Your task to perform on an android device: Open Yahoo.com Image 0: 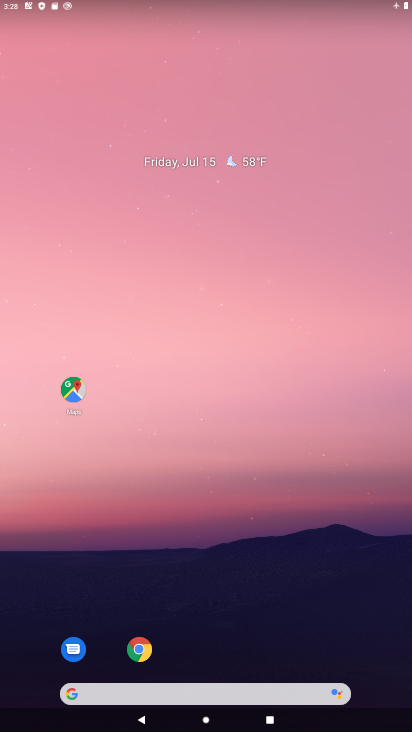
Step 0: click (142, 649)
Your task to perform on an android device: Open Yahoo.com Image 1: 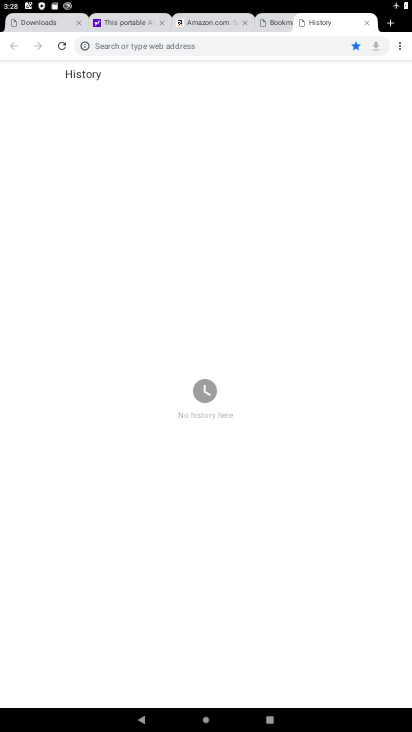
Step 1: click (136, 22)
Your task to perform on an android device: Open Yahoo.com Image 2: 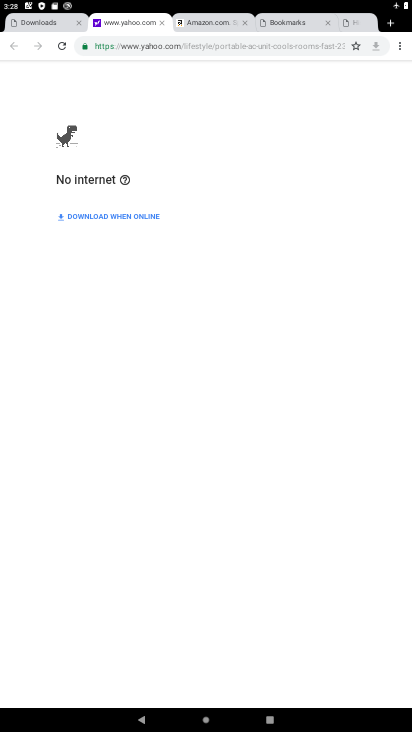
Step 2: task complete